Your task to perform on an android device: clear history in the chrome app Image 0: 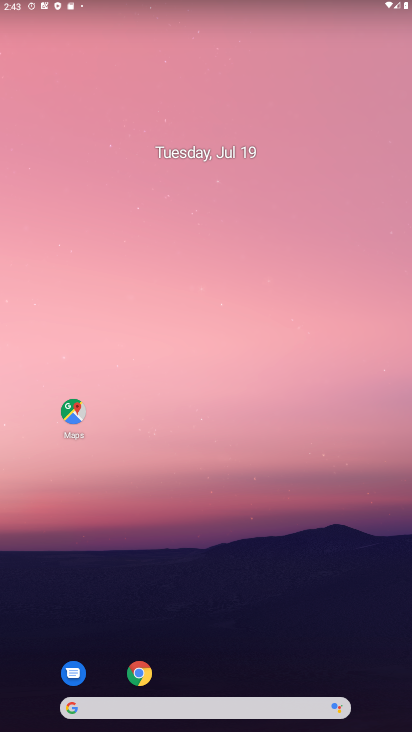
Step 0: click (148, 670)
Your task to perform on an android device: clear history in the chrome app Image 1: 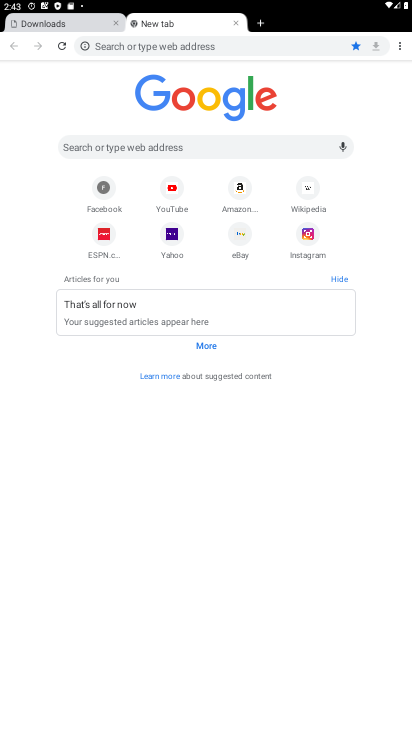
Step 1: click (403, 46)
Your task to perform on an android device: clear history in the chrome app Image 2: 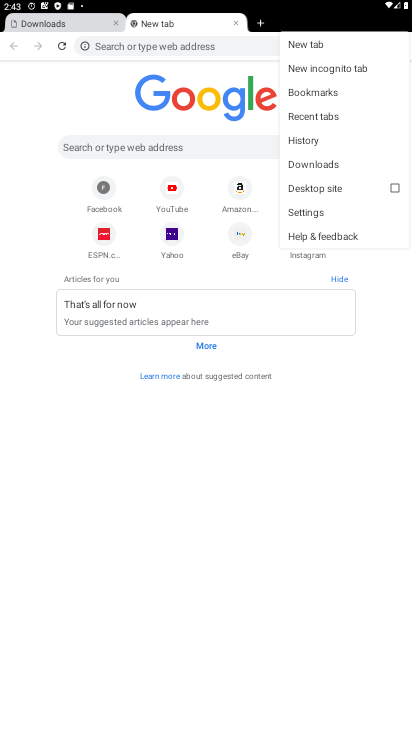
Step 2: click (304, 143)
Your task to perform on an android device: clear history in the chrome app Image 3: 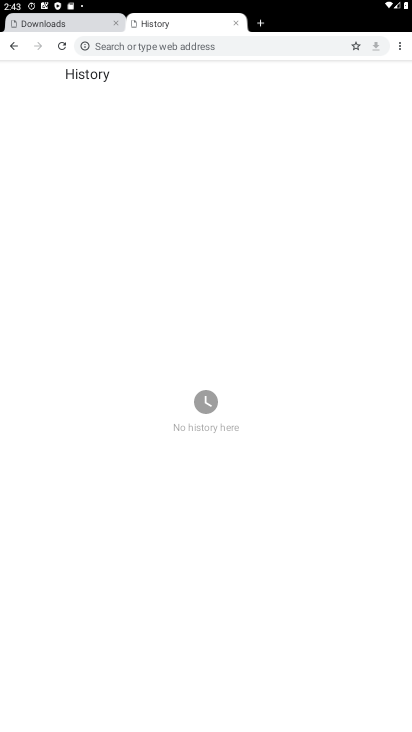
Step 3: task complete